Your task to perform on an android device: Open display settings Image 0: 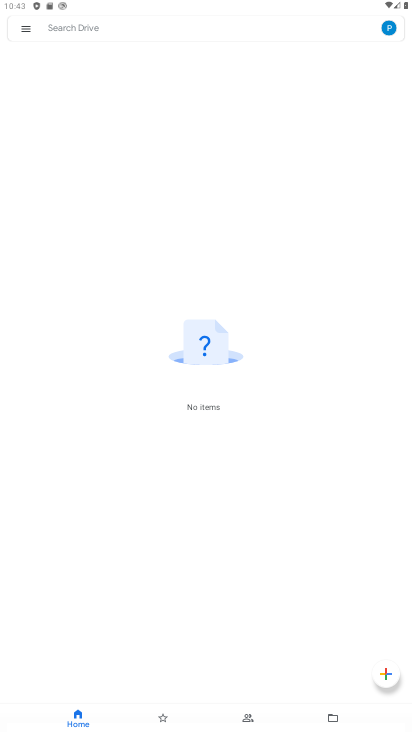
Step 0: press home button
Your task to perform on an android device: Open display settings Image 1: 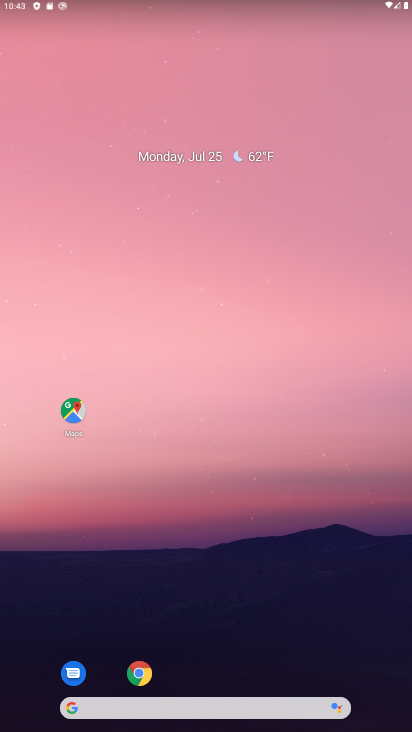
Step 1: drag from (249, 630) to (14, 5)
Your task to perform on an android device: Open display settings Image 2: 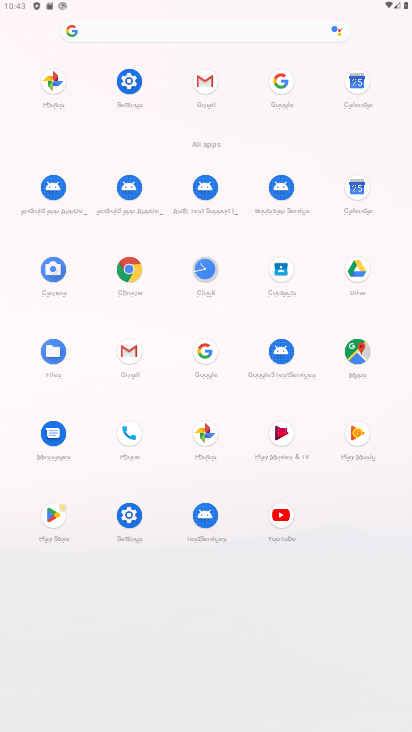
Step 2: click (126, 76)
Your task to perform on an android device: Open display settings Image 3: 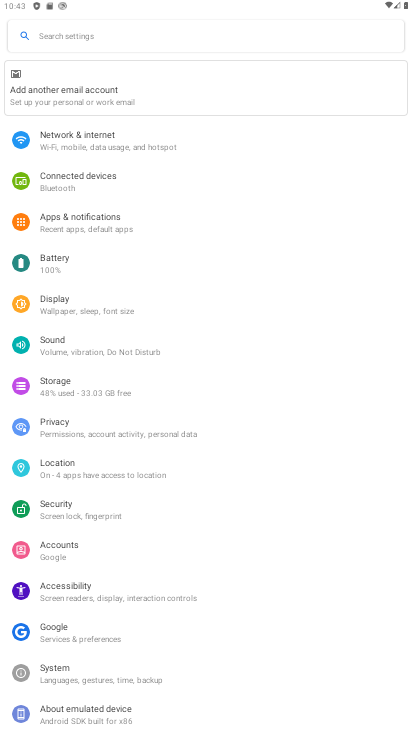
Step 3: click (42, 303)
Your task to perform on an android device: Open display settings Image 4: 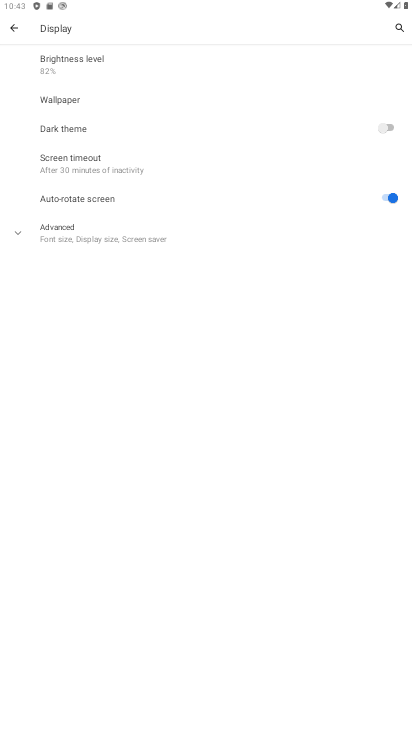
Step 4: task complete